Your task to perform on an android device: Open calendar and show me the third week of next month Image 0: 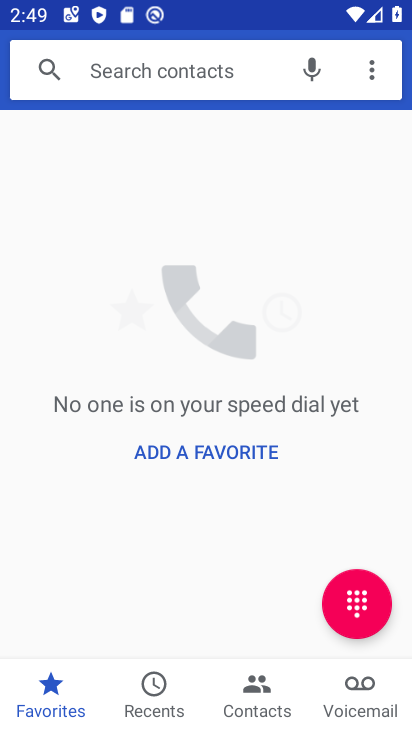
Step 0: press home button
Your task to perform on an android device: Open calendar and show me the third week of next month Image 1: 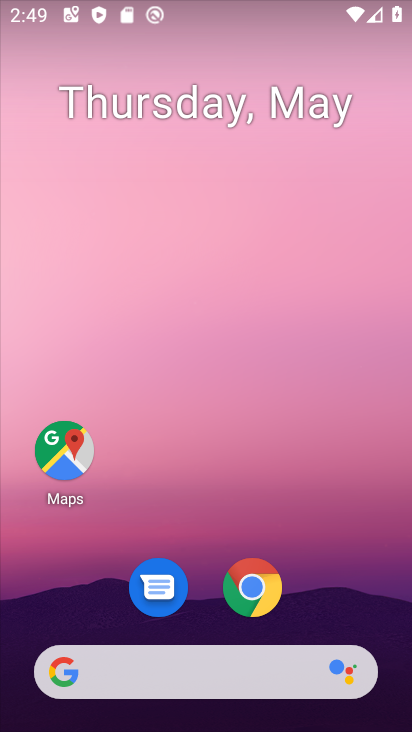
Step 1: drag from (309, 614) to (249, 2)
Your task to perform on an android device: Open calendar and show me the third week of next month Image 2: 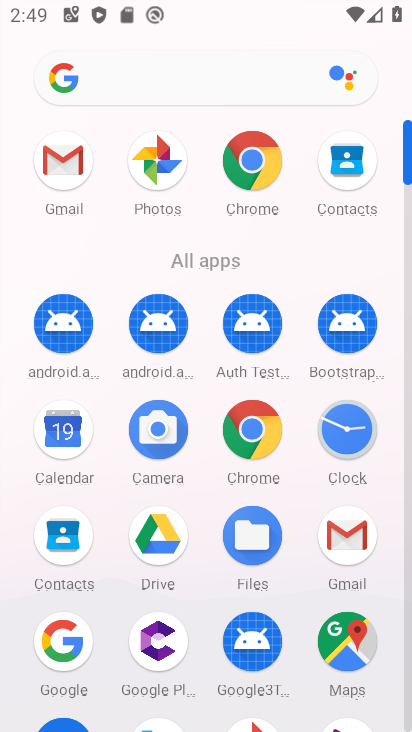
Step 2: click (70, 418)
Your task to perform on an android device: Open calendar and show me the third week of next month Image 3: 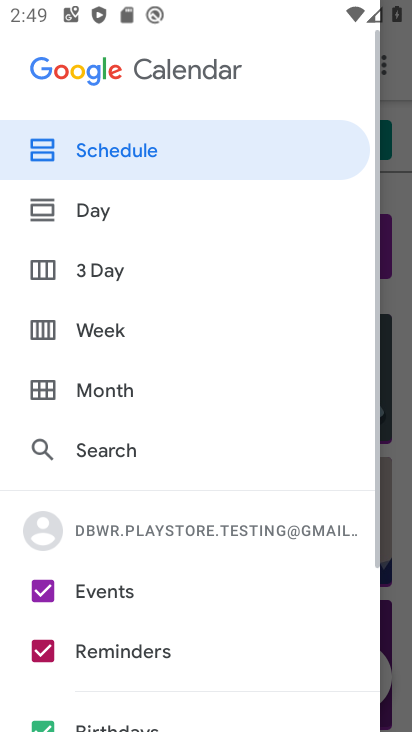
Step 3: click (135, 338)
Your task to perform on an android device: Open calendar and show me the third week of next month Image 4: 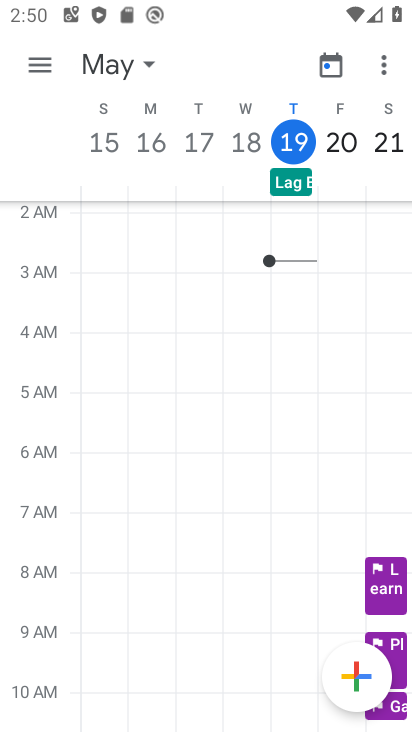
Step 4: click (146, 58)
Your task to perform on an android device: Open calendar and show me the third week of next month Image 5: 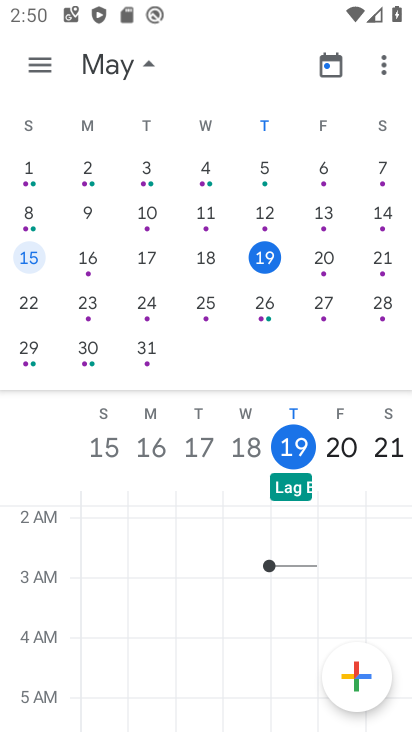
Step 5: drag from (365, 276) to (38, 274)
Your task to perform on an android device: Open calendar and show me the third week of next month Image 6: 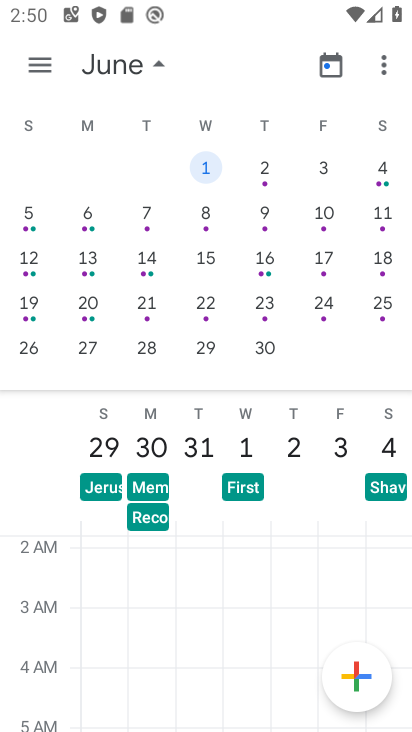
Step 6: click (93, 307)
Your task to perform on an android device: Open calendar and show me the third week of next month Image 7: 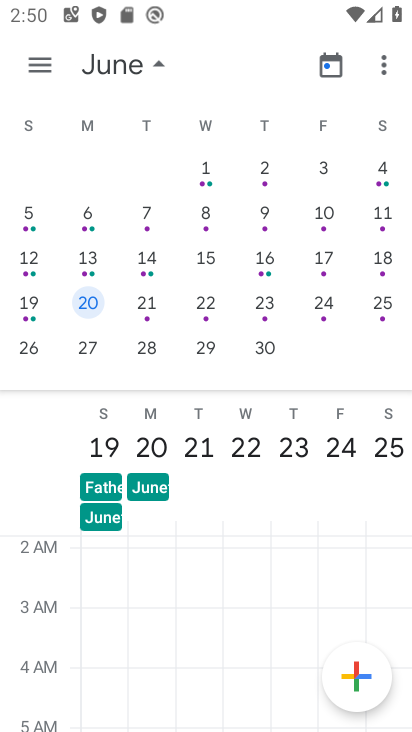
Step 7: task complete